Your task to perform on an android device: turn off improve location accuracy Image 0: 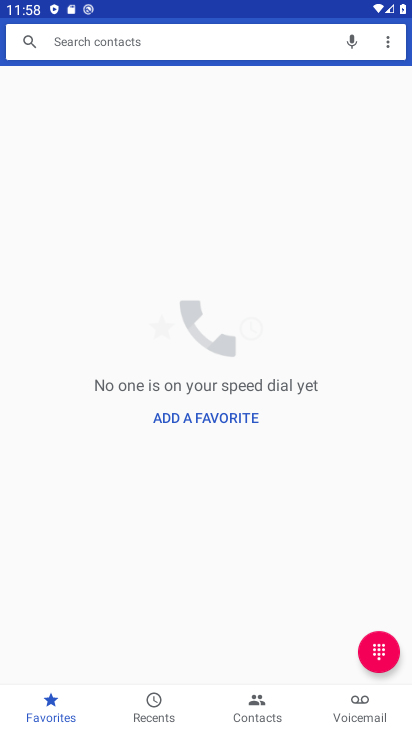
Step 0: press home button
Your task to perform on an android device: turn off improve location accuracy Image 1: 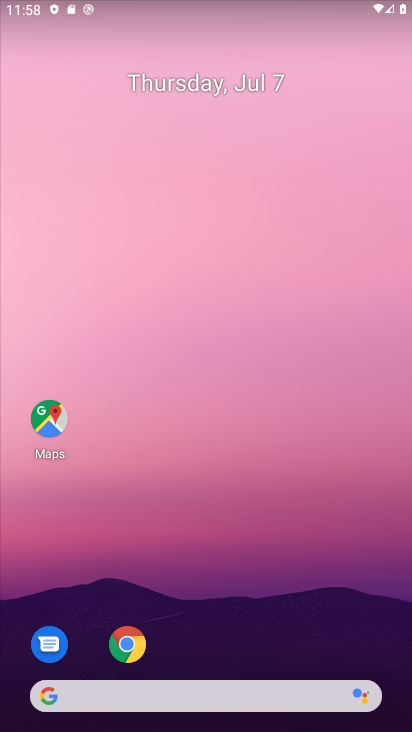
Step 1: drag from (192, 702) to (80, 373)
Your task to perform on an android device: turn off improve location accuracy Image 2: 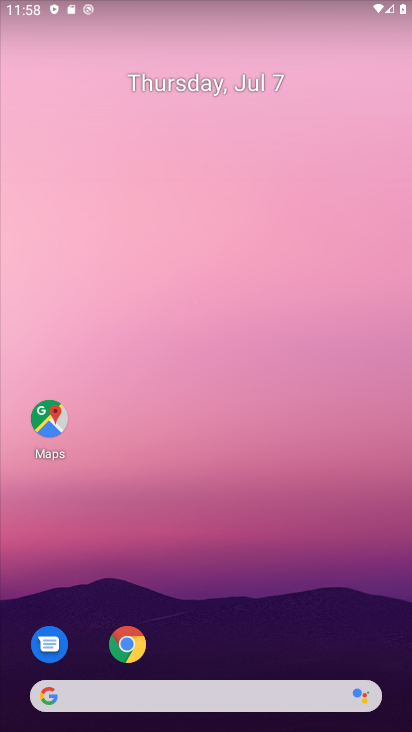
Step 2: drag from (203, 689) to (128, 245)
Your task to perform on an android device: turn off improve location accuracy Image 3: 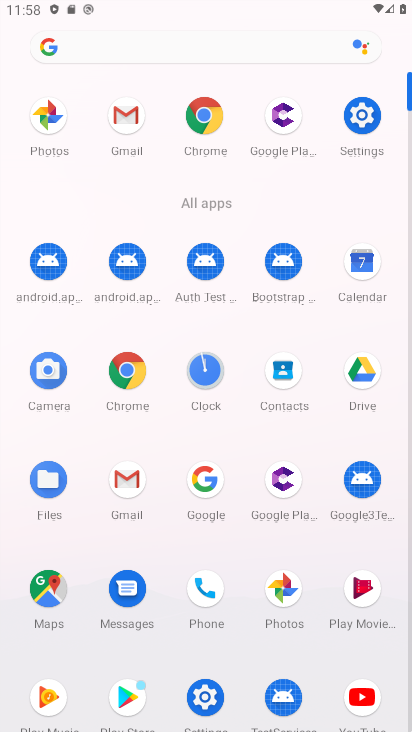
Step 3: click (216, 680)
Your task to perform on an android device: turn off improve location accuracy Image 4: 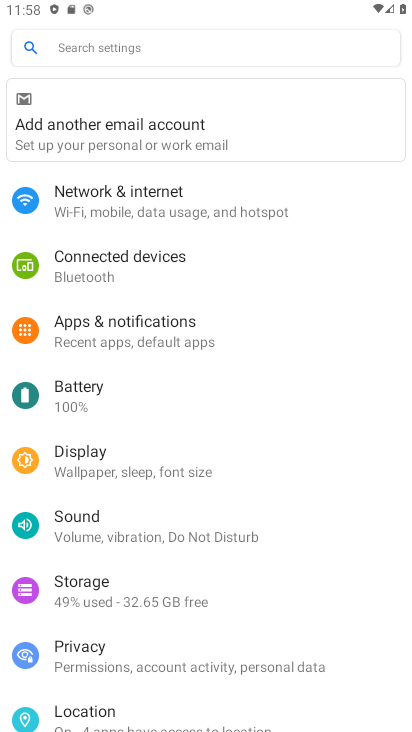
Step 4: click (112, 716)
Your task to perform on an android device: turn off improve location accuracy Image 5: 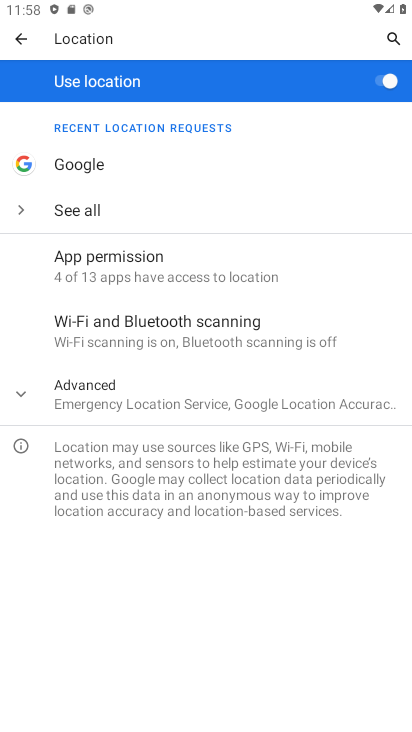
Step 5: click (154, 397)
Your task to perform on an android device: turn off improve location accuracy Image 6: 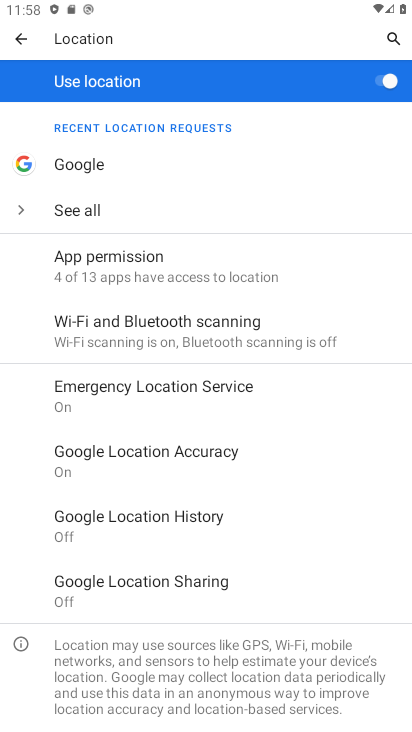
Step 6: click (184, 456)
Your task to perform on an android device: turn off improve location accuracy Image 7: 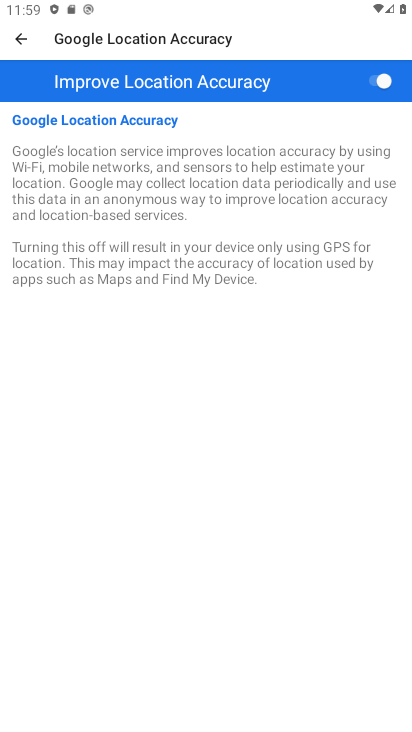
Step 7: click (370, 84)
Your task to perform on an android device: turn off improve location accuracy Image 8: 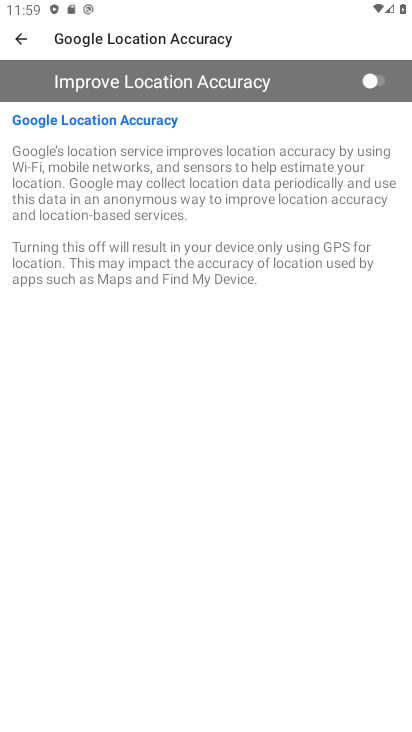
Step 8: task complete